Your task to perform on an android device: Open Youtube and go to the subscriptions tab Image 0: 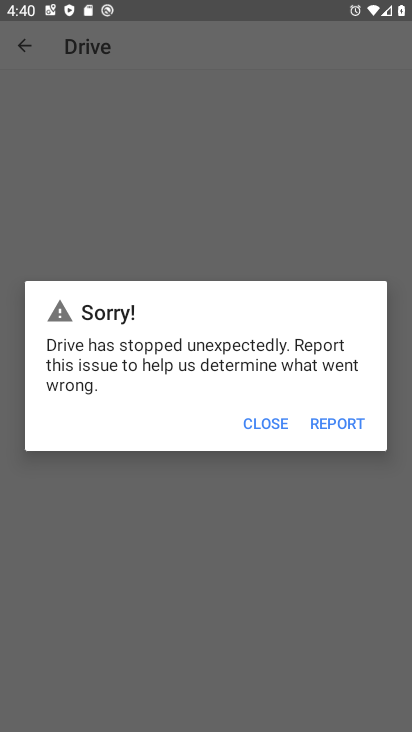
Step 0: press home button
Your task to perform on an android device: Open Youtube and go to the subscriptions tab Image 1: 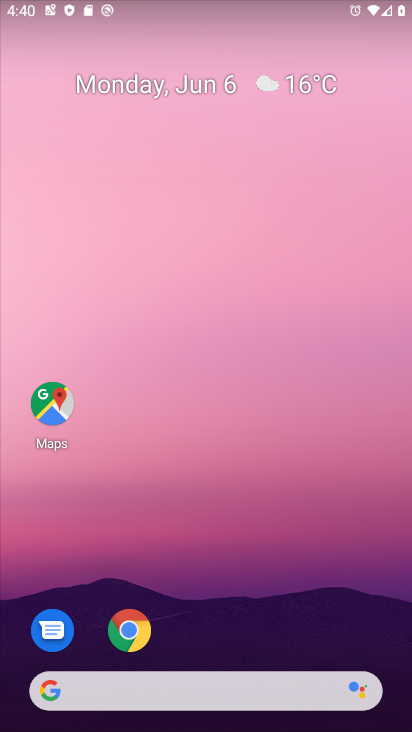
Step 1: drag from (298, 635) to (207, 27)
Your task to perform on an android device: Open Youtube and go to the subscriptions tab Image 2: 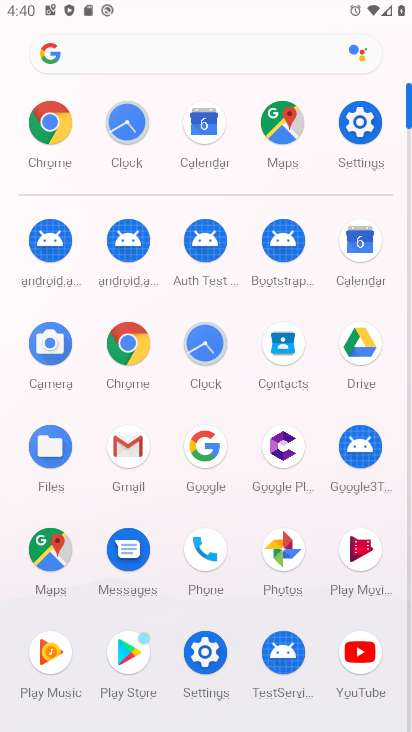
Step 2: click (368, 658)
Your task to perform on an android device: Open Youtube and go to the subscriptions tab Image 3: 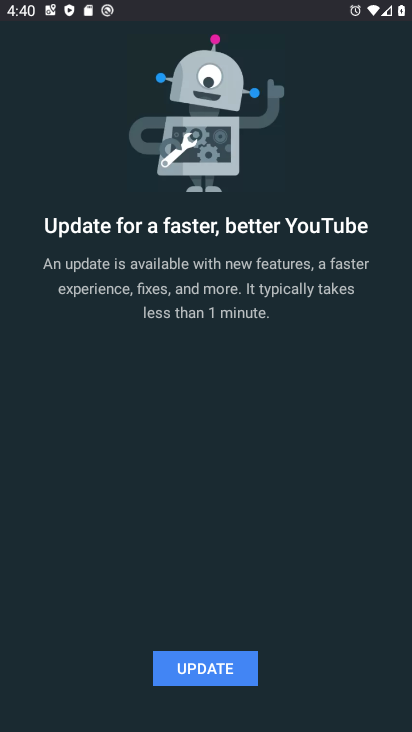
Step 3: click (235, 679)
Your task to perform on an android device: Open Youtube and go to the subscriptions tab Image 4: 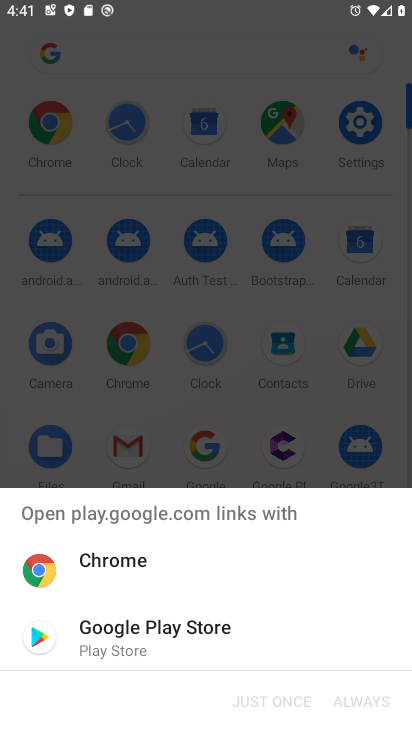
Step 4: click (139, 621)
Your task to perform on an android device: Open Youtube and go to the subscriptions tab Image 5: 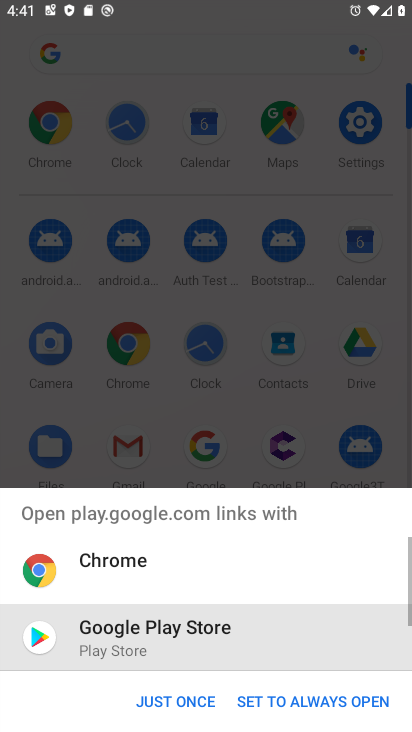
Step 5: click (153, 693)
Your task to perform on an android device: Open Youtube and go to the subscriptions tab Image 6: 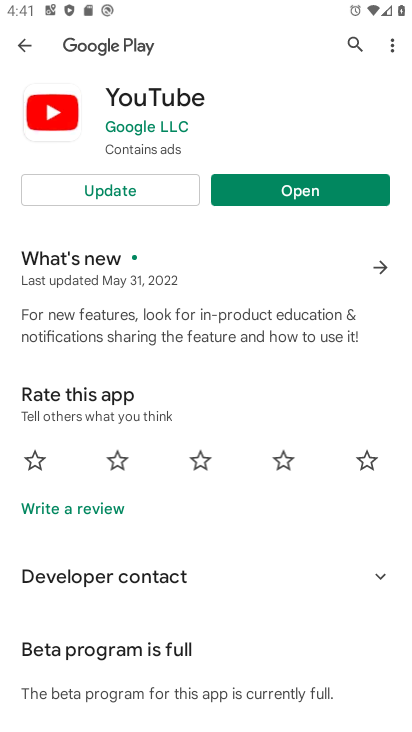
Step 6: click (146, 182)
Your task to perform on an android device: Open Youtube and go to the subscriptions tab Image 7: 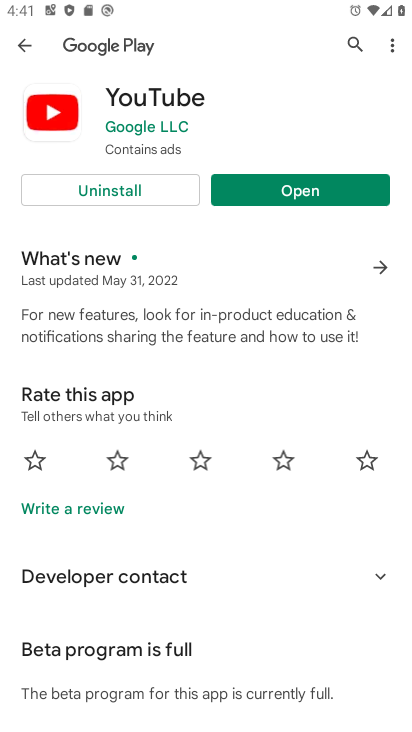
Step 7: click (270, 191)
Your task to perform on an android device: Open Youtube and go to the subscriptions tab Image 8: 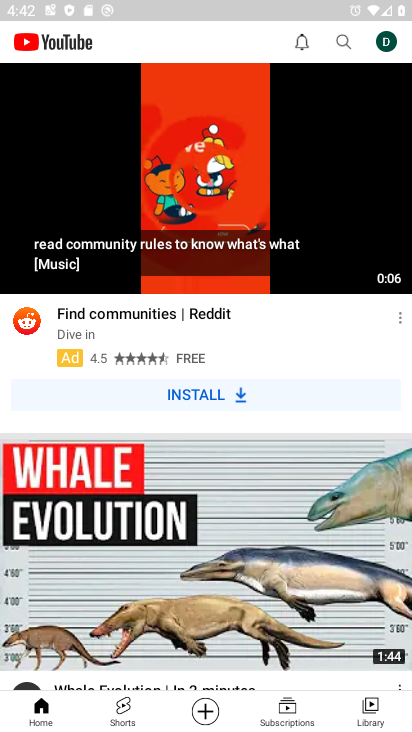
Step 8: click (293, 702)
Your task to perform on an android device: Open Youtube and go to the subscriptions tab Image 9: 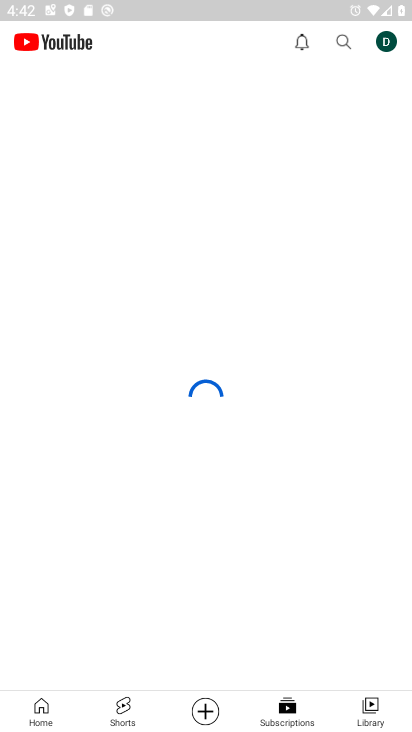
Step 9: task complete